Your task to perform on an android device: Open calendar and show me the third week of next month Image 0: 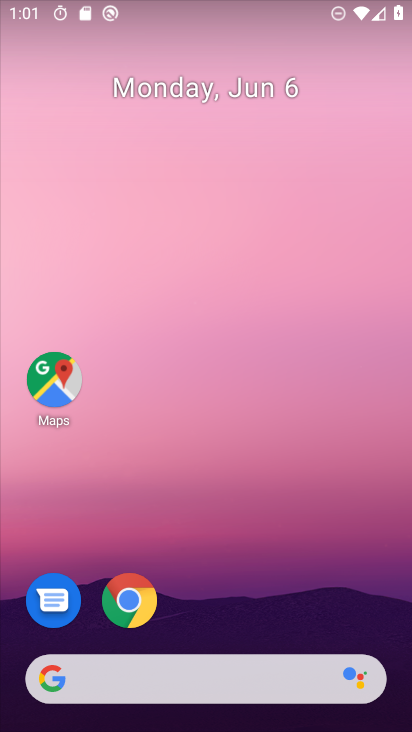
Step 0: drag from (250, 567) to (268, 138)
Your task to perform on an android device: Open calendar and show me the third week of next month Image 1: 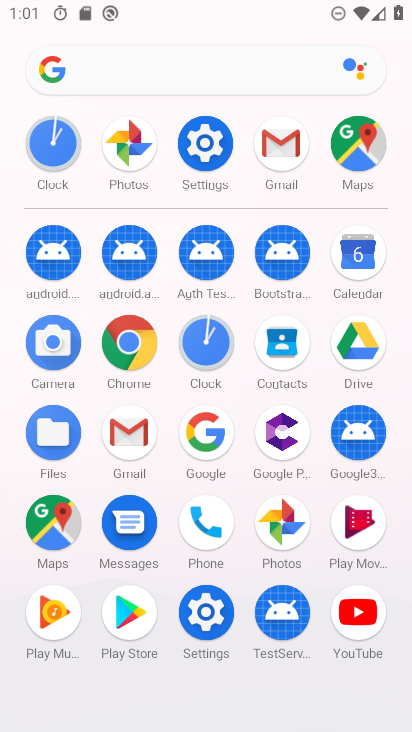
Step 1: click (354, 280)
Your task to perform on an android device: Open calendar and show me the third week of next month Image 2: 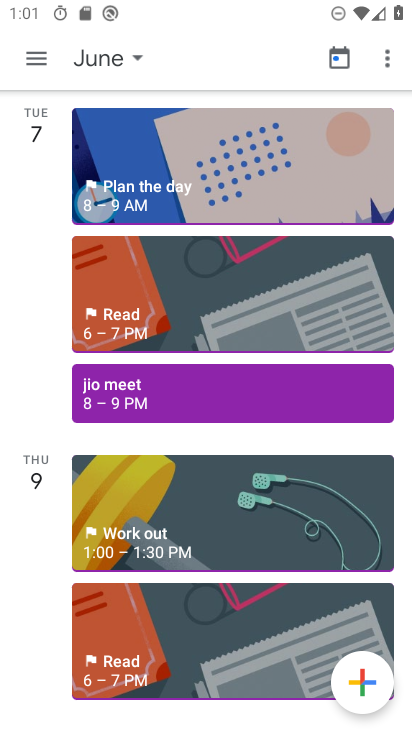
Step 2: click (123, 61)
Your task to perform on an android device: Open calendar and show me the third week of next month Image 3: 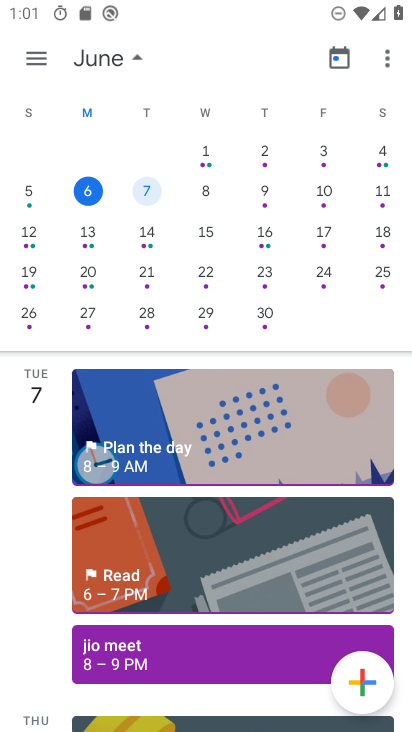
Step 3: drag from (321, 212) to (38, 235)
Your task to perform on an android device: Open calendar and show me the third week of next month Image 4: 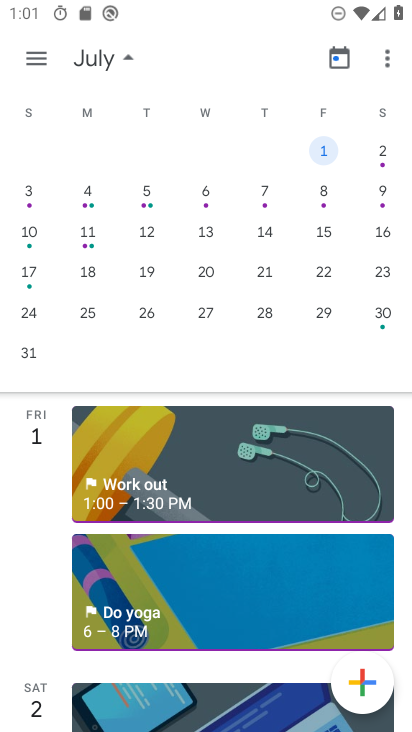
Step 4: click (27, 226)
Your task to perform on an android device: Open calendar and show me the third week of next month Image 5: 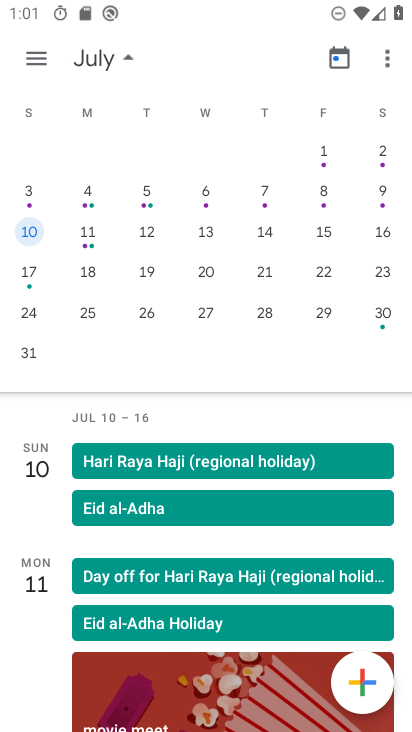
Step 5: task complete